Your task to perform on an android device: Open the map Image 0: 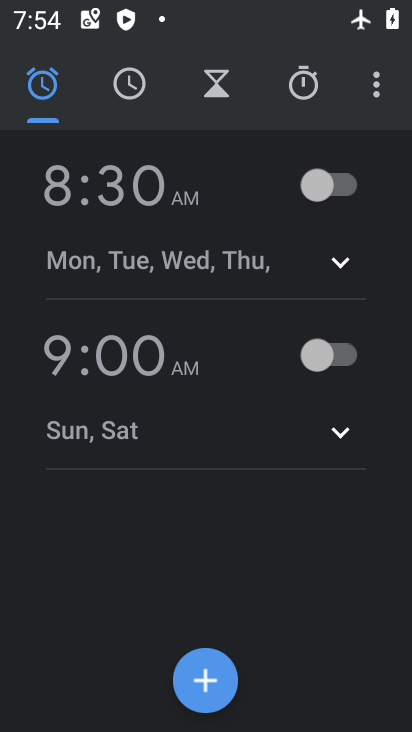
Step 0: press home button
Your task to perform on an android device: Open the map Image 1: 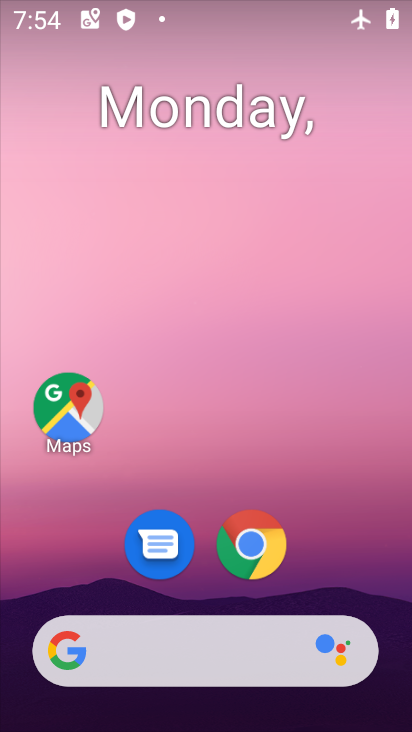
Step 1: click (55, 408)
Your task to perform on an android device: Open the map Image 2: 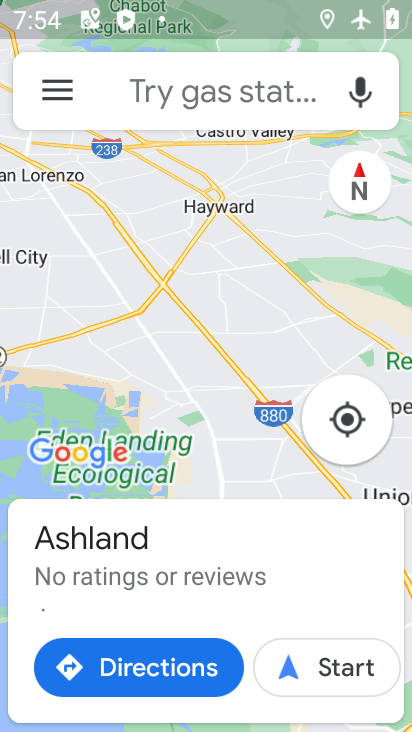
Step 2: click (179, 104)
Your task to perform on an android device: Open the map Image 3: 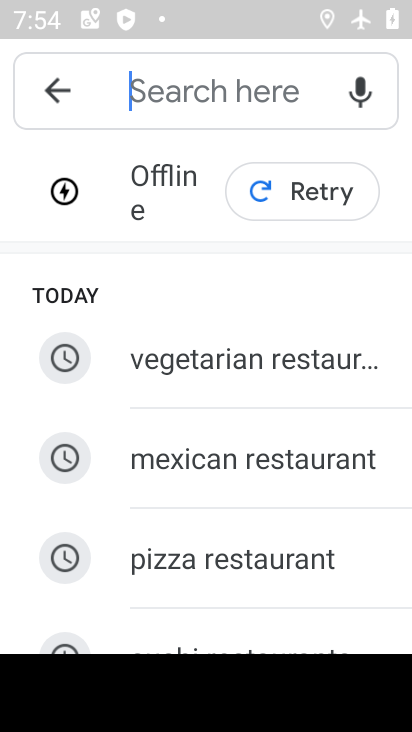
Step 3: click (47, 94)
Your task to perform on an android device: Open the map Image 4: 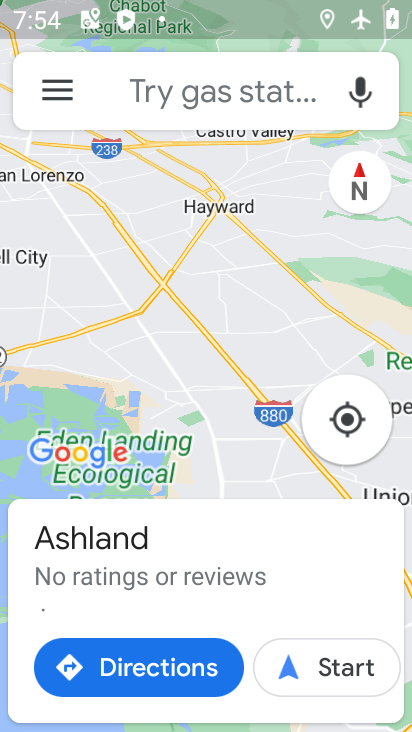
Step 4: task complete